Your task to perform on an android device: Go to Yahoo.com Image 0: 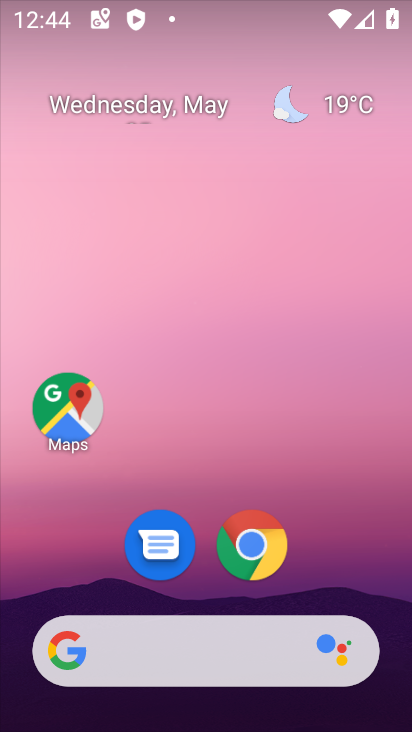
Step 0: click (253, 550)
Your task to perform on an android device: Go to Yahoo.com Image 1: 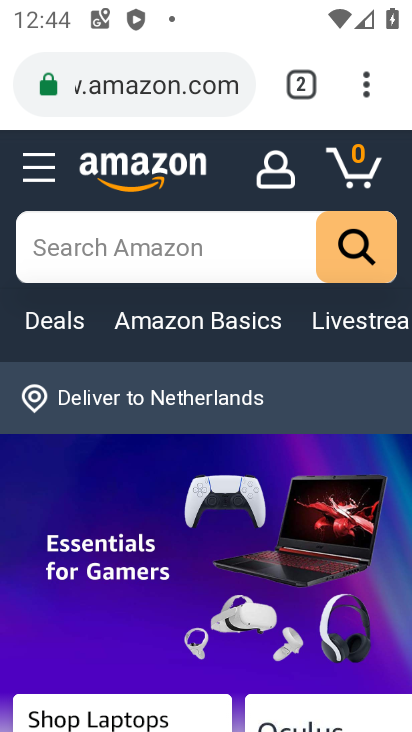
Step 1: click (303, 96)
Your task to perform on an android device: Go to Yahoo.com Image 2: 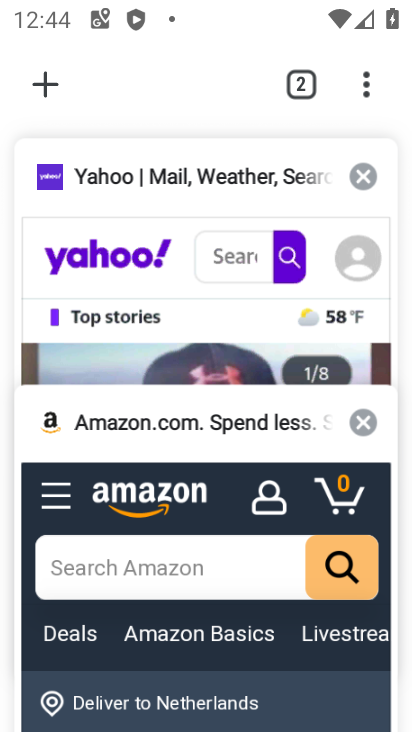
Step 2: click (126, 211)
Your task to perform on an android device: Go to Yahoo.com Image 3: 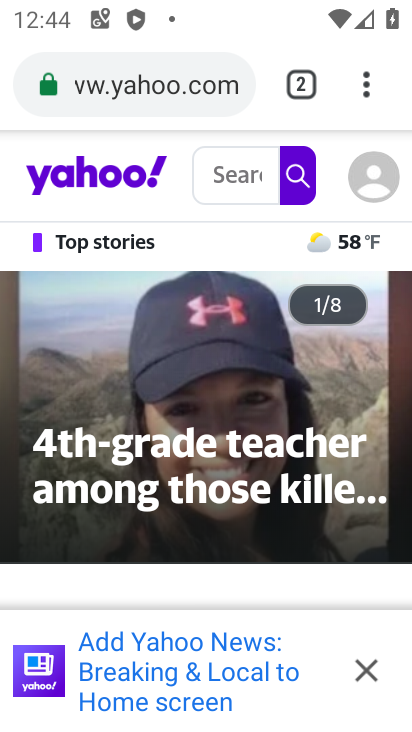
Step 3: task complete